Your task to perform on an android device: Show me popular videos on Youtube Image 0: 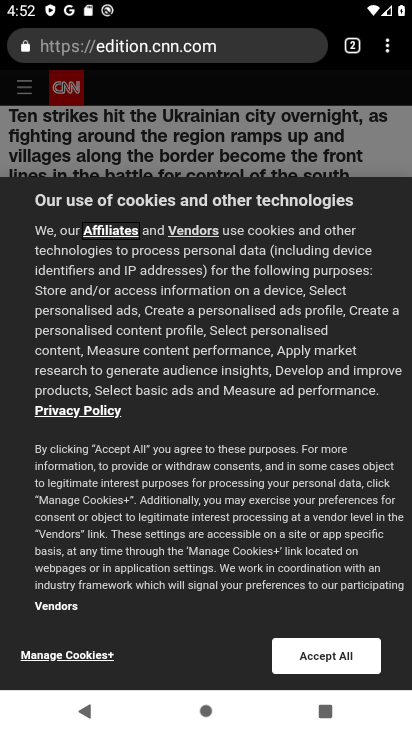
Step 0: press home button
Your task to perform on an android device: Show me popular videos on Youtube Image 1: 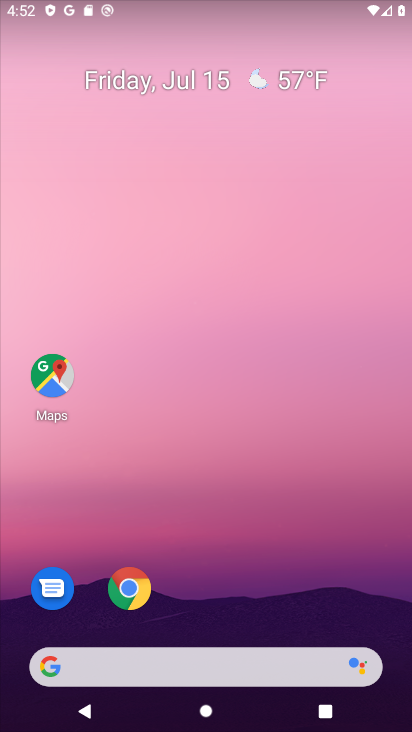
Step 1: drag from (251, 618) to (258, 41)
Your task to perform on an android device: Show me popular videos on Youtube Image 2: 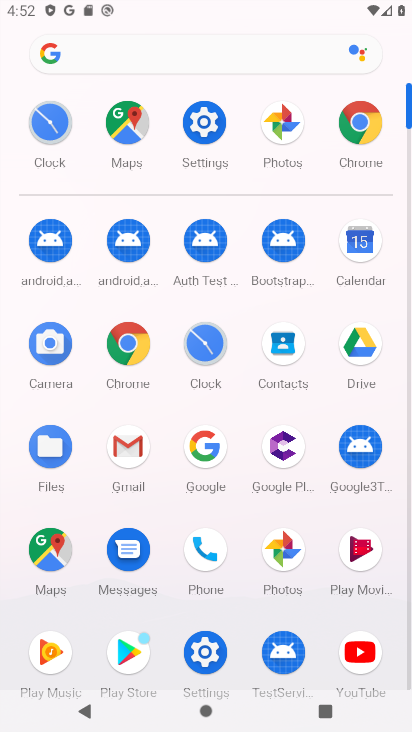
Step 2: click (360, 657)
Your task to perform on an android device: Show me popular videos on Youtube Image 3: 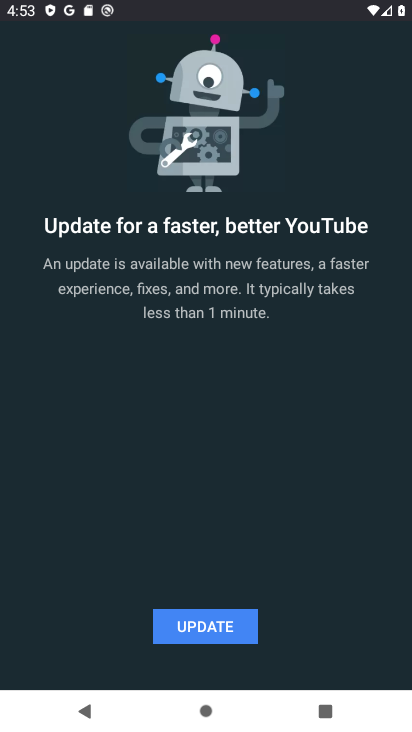
Step 3: click (243, 620)
Your task to perform on an android device: Show me popular videos on Youtube Image 4: 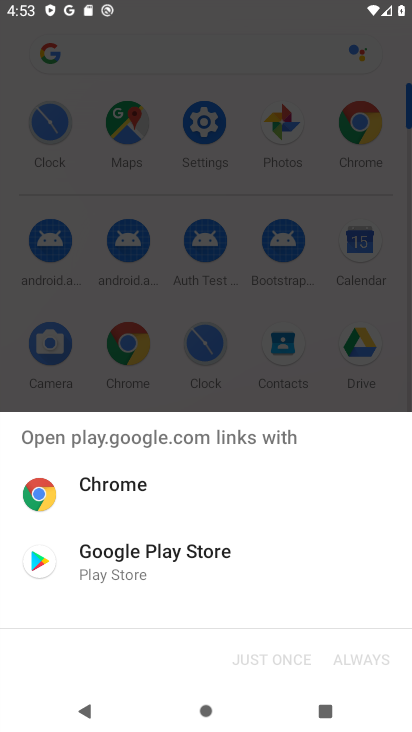
Step 4: click (177, 557)
Your task to perform on an android device: Show me popular videos on Youtube Image 5: 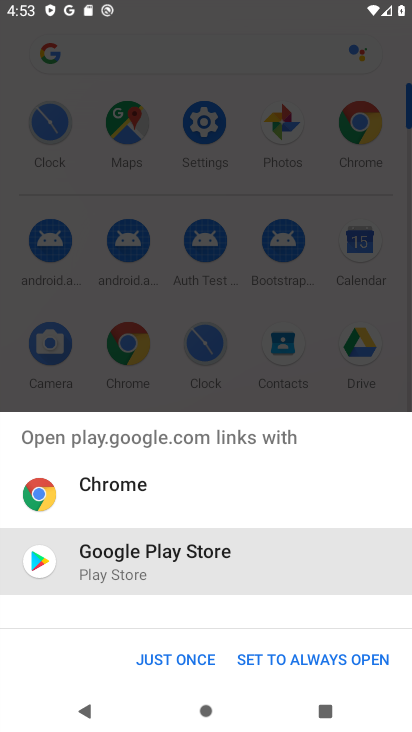
Step 5: click (175, 649)
Your task to perform on an android device: Show me popular videos on Youtube Image 6: 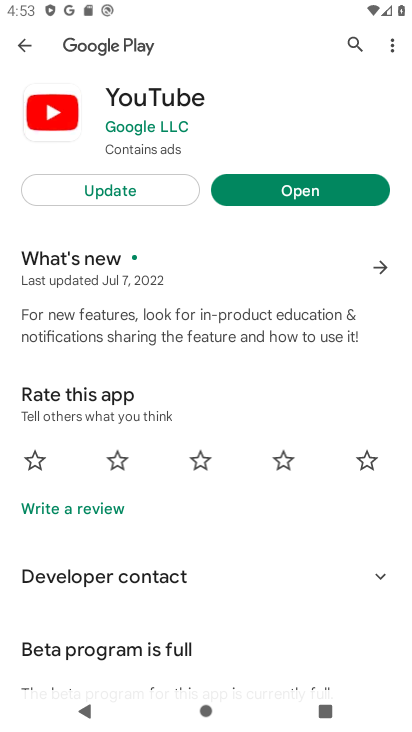
Step 6: click (154, 176)
Your task to perform on an android device: Show me popular videos on Youtube Image 7: 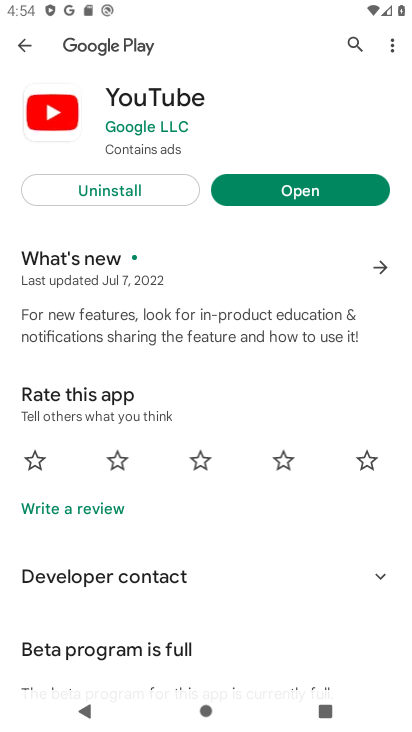
Step 7: click (281, 189)
Your task to perform on an android device: Show me popular videos on Youtube Image 8: 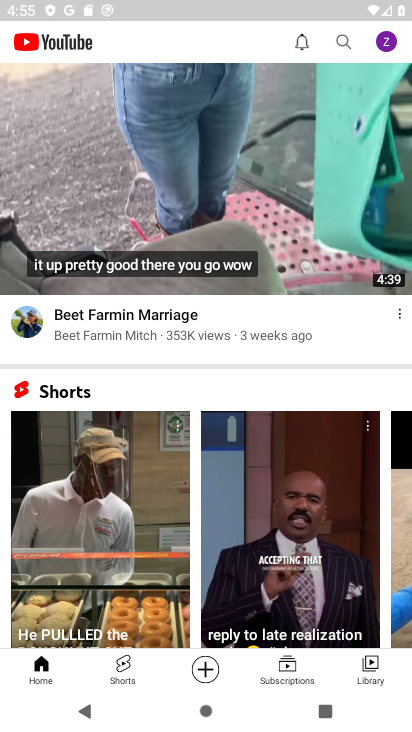
Step 8: drag from (258, 558) to (311, 282)
Your task to perform on an android device: Show me popular videos on Youtube Image 9: 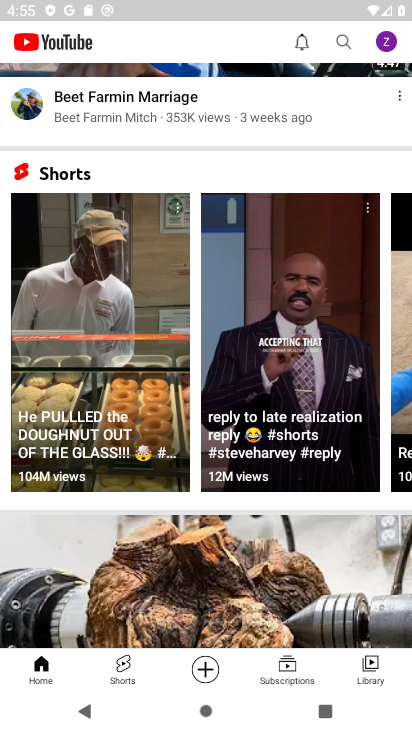
Step 9: click (341, 41)
Your task to perform on an android device: Show me popular videos on Youtube Image 10: 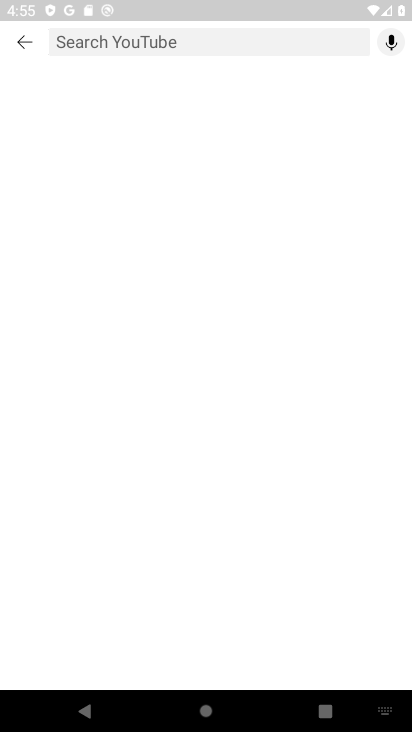
Step 10: type " popular videos "
Your task to perform on an android device: Show me popular videos on Youtube Image 11: 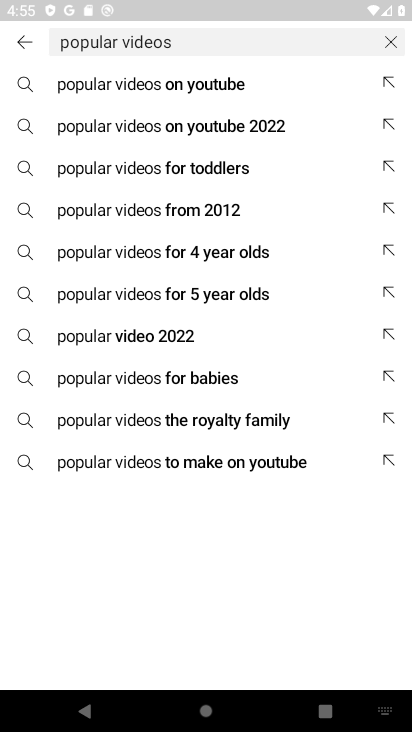
Step 11: click (106, 74)
Your task to perform on an android device: Show me popular videos on Youtube Image 12: 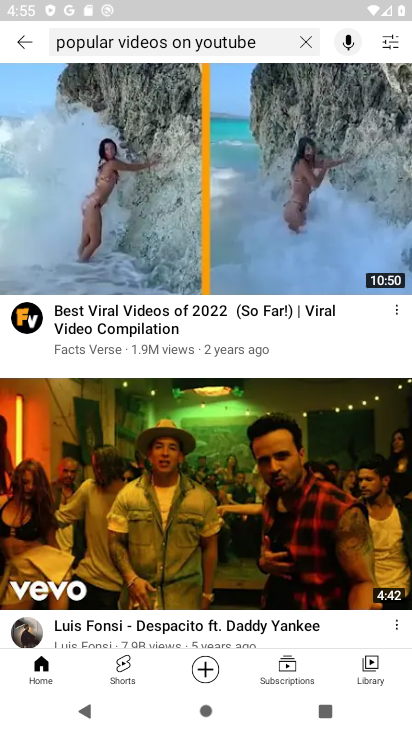
Step 12: task complete